Your task to perform on an android device: turn off javascript in the chrome app Image 0: 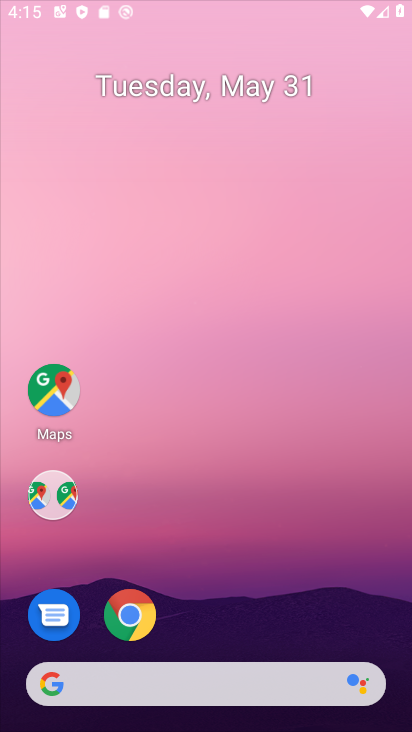
Step 0: click (229, 78)
Your task to perform on an android device: turn off javascript in the chrome app Image 1: 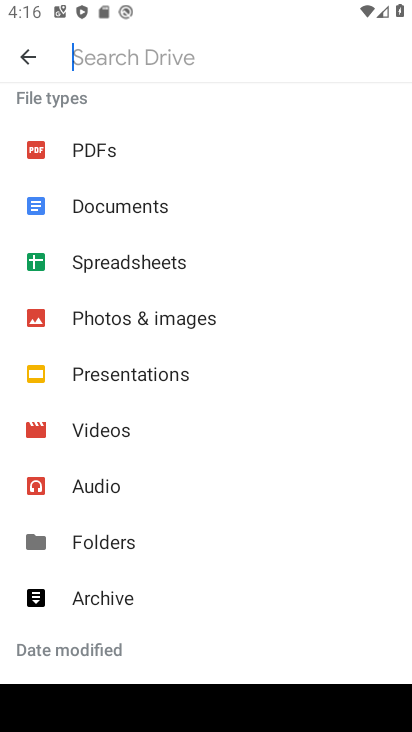
Step 1: click (22, 57)
Your task to perform on an android device: turn off javascript in the chrome app Image 2: 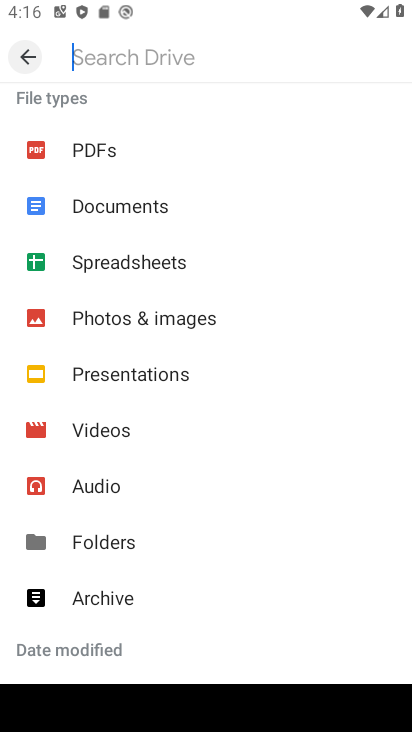
Step 2: click (22, 57)
Your task to perform on an android device: turn off javascript in the chrome app Image 3: 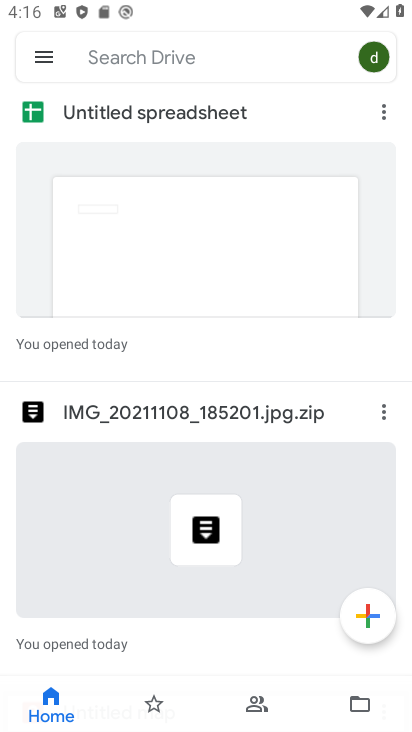
Step 3: click (24, 57)
Your task to perform on an android device: turn off javascript in the chrome app Image 4: 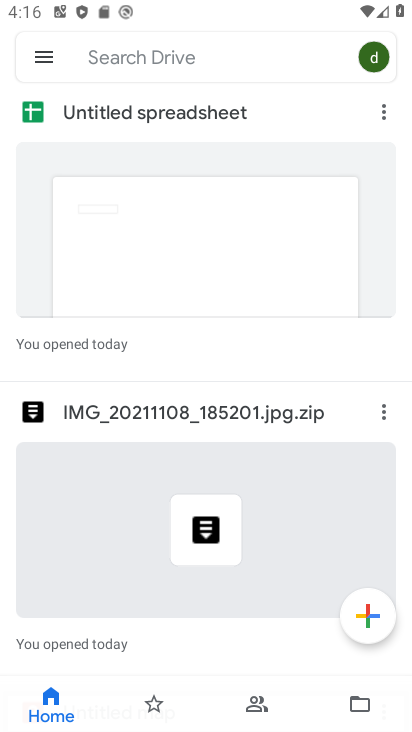
Step 4: click (37, 57)
Your task to perform on an android device: turn off javascript in the chrome app Image 5: 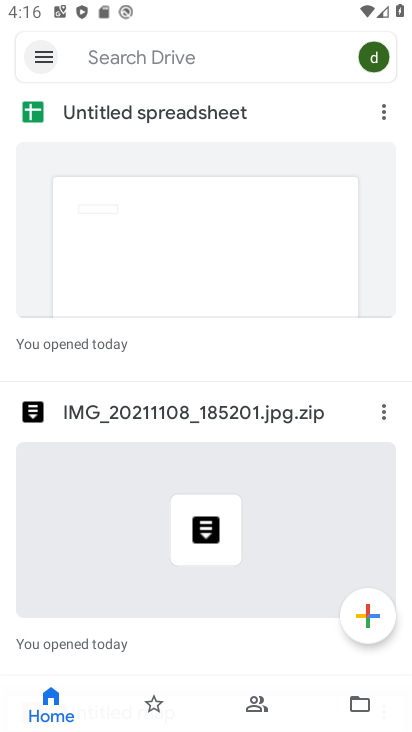
Step 5: click (38, 56)
Your task to perform on an android device: turn off javascript in the chrome app Image 6: 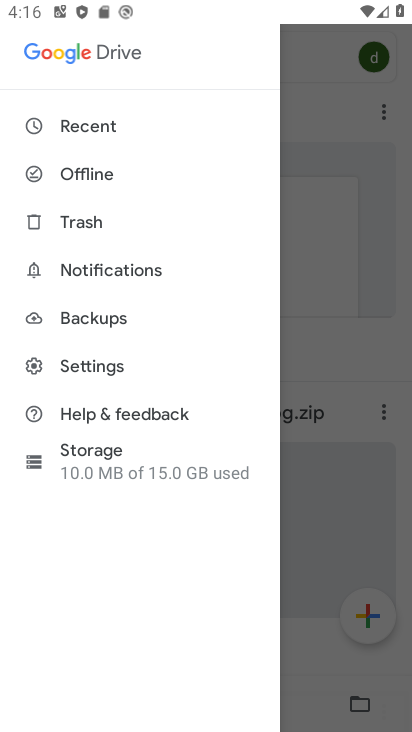
Step 6: click (362, 424)
Your task to perform on an android device: turn off javascript in the chrome app Image 7: 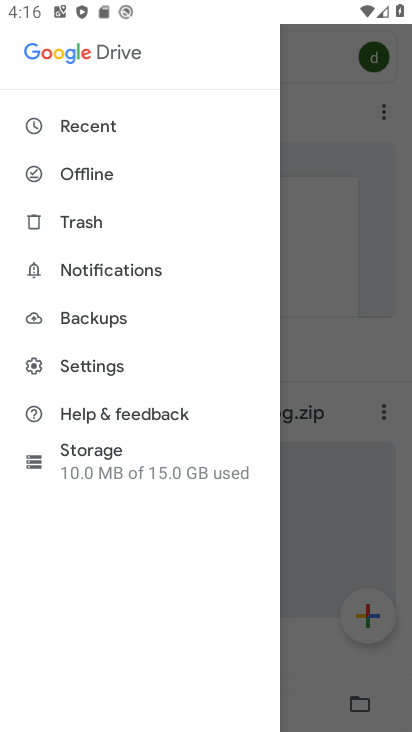
Step 7: press back button
Your task to perform on an android device: turn off javascript in the chrome app Image 8: 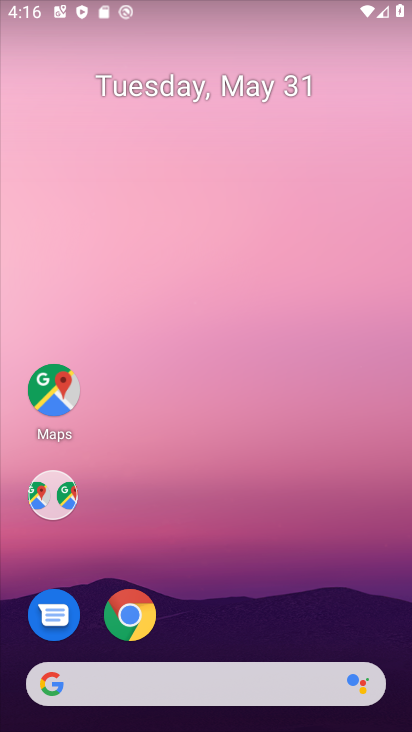
Step 8: drag from (283, 692) to (166, 118)
Your task to perform on an android device: turn off javascript in the chrome app Image 9: 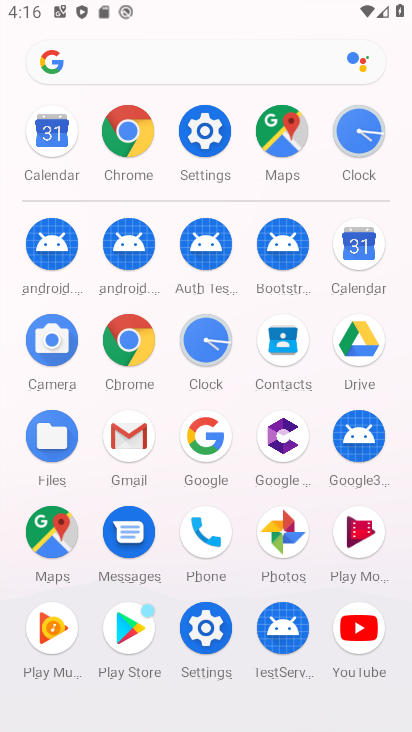
Step 9: click (123, 126)
Your task to perform on an android device: turn off javascript in the chrome app Image 10: 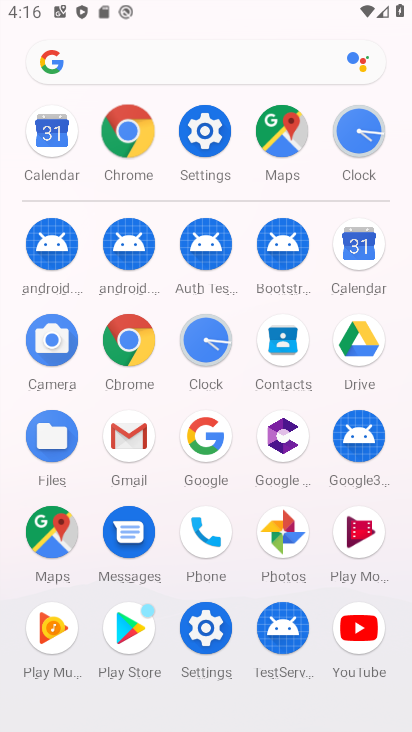
Step 10: click (123, 126)
Your task to perform on an android device: turn off javascript in the chrome app Image 11: 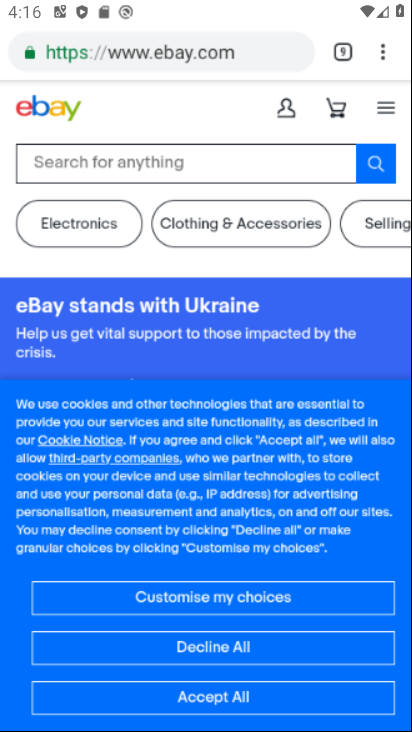
Step 11: click (127, 130)
Your task to perform on an android device: turn off javascript in the chrome app Image 12: 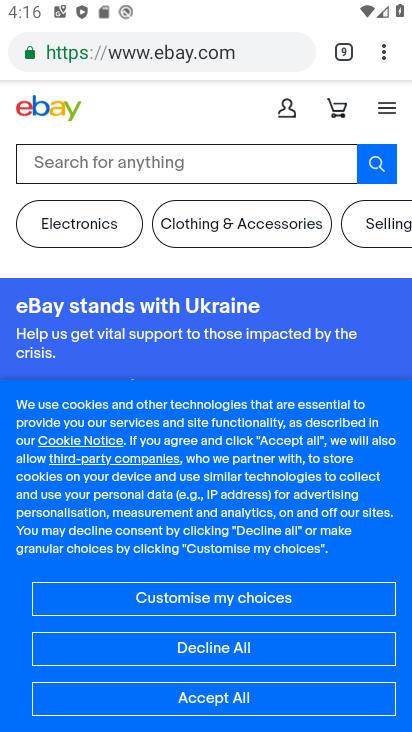
Step 12: drag from (385, 49) to (187, 632)
Your task to perform on an android device: turn off javascript in the chrome app Image 13: 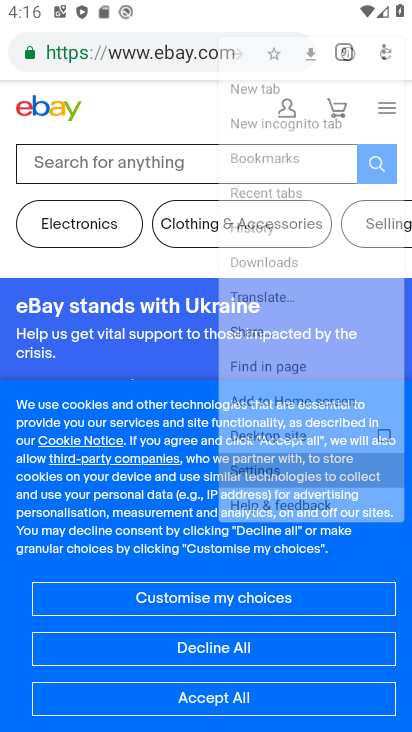
Step 13: click (187, 632)
Your task to perform on an android device: turn off javascript in the chrome app Image 14: 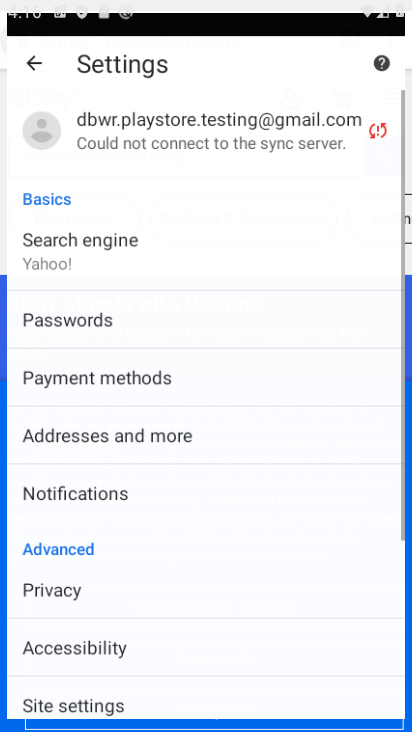
Step 14: click (195, 618)
Your task to perform on an android device: turn off javascript in the chrome app Image 15: 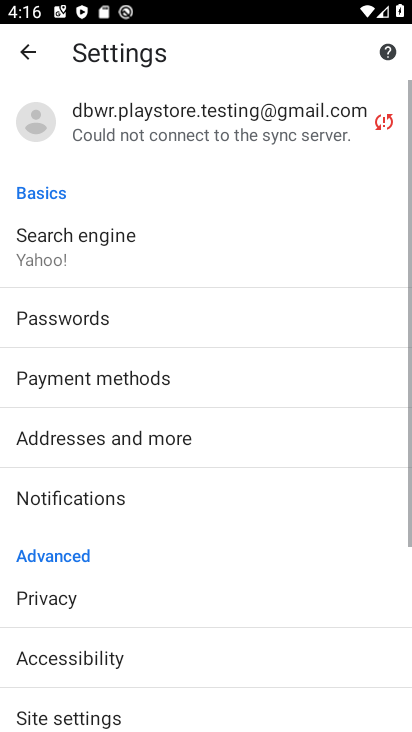
Step 15: drag from (110, 470) to (147, 132)
Your task to perform on an android device: turn off javascript in the chrome app Image 16: 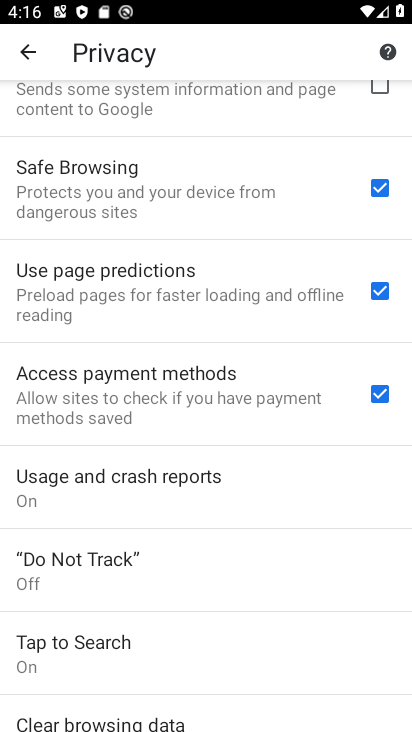
Step 16: click (20, 51)
Your task to perform on an android device: turn off javascript in the chrome app Image 17: 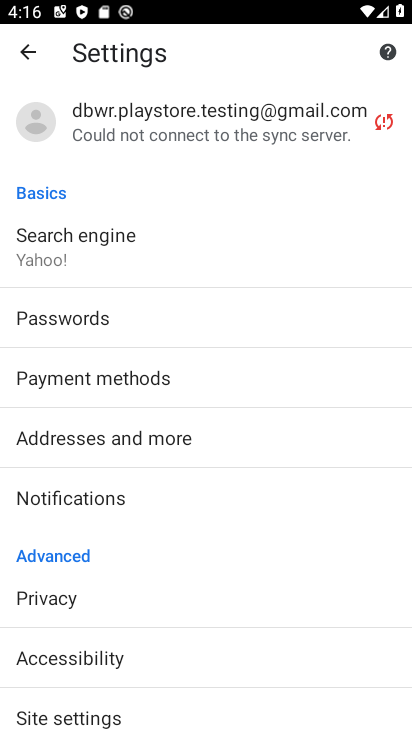
Step 17: click (88, 236)
Your task to perform on an android device: turn off javascript in the chrome app Image 18: 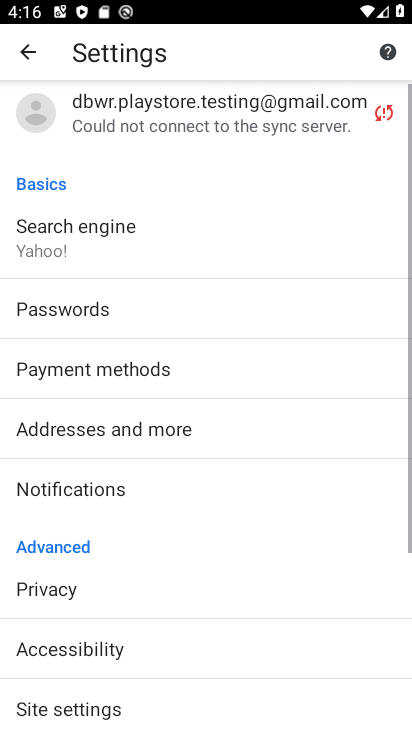
Step 18: drag from (86, 463) to (73, 172)
Your task to perform on an android device: turn off javascript in the chrome app Image 19: 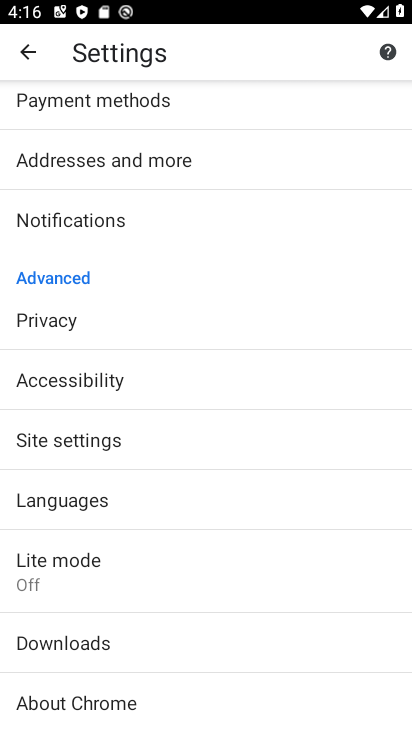
Step 19: click (54, 439)
Your task to perform on an android device: turn off javascript in the chrome app Image 20: 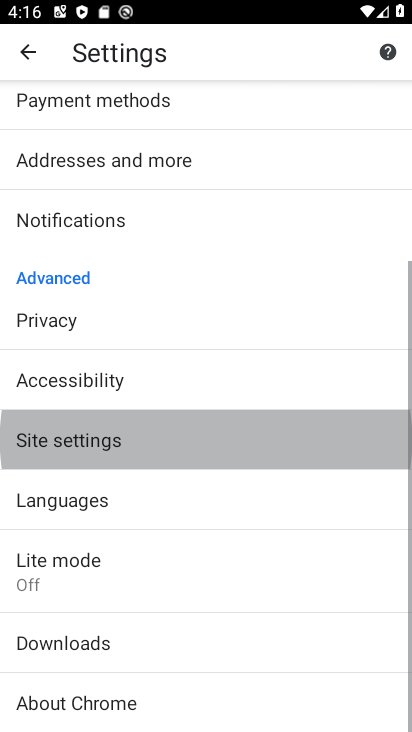
Step 20: click (55, 439)
Your task to perform on an android device: turn off javascript in the chrome app Image 21: 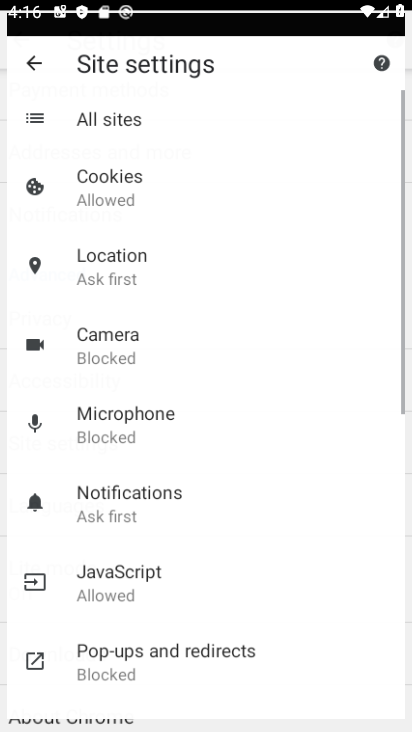
Step 21: click (58, 436)
Your task to perform on an android device: turn off javascript in the chrome app Image 22: 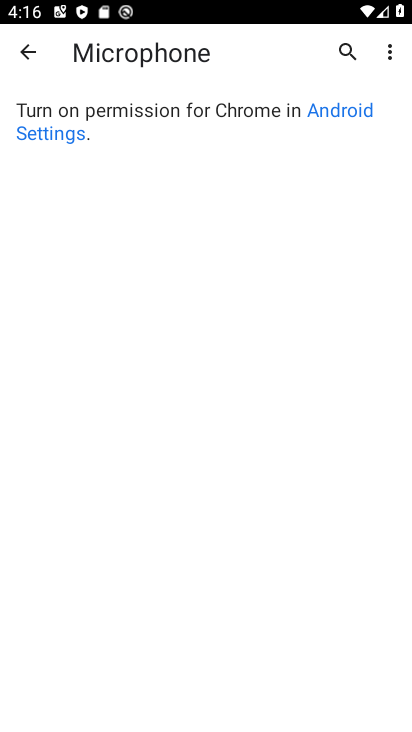
Step 22: click (19, 34)
Your task to perform on an android device: turn off javascript in the chrome app Image 23: 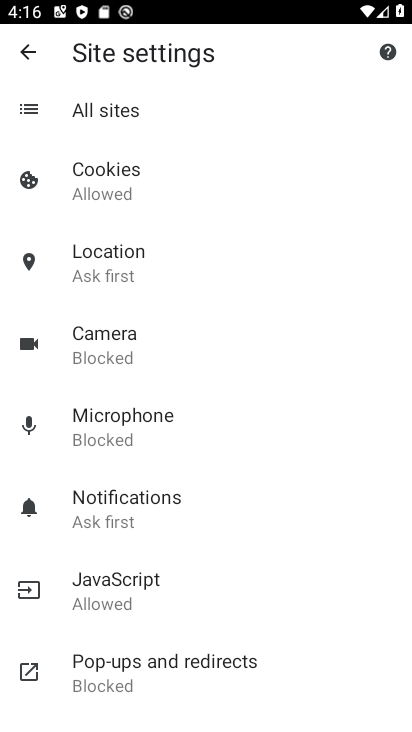
Step 23: click (107, 587)
Your task to perform on an android device: turn off javascript in the chrome app Image 24: 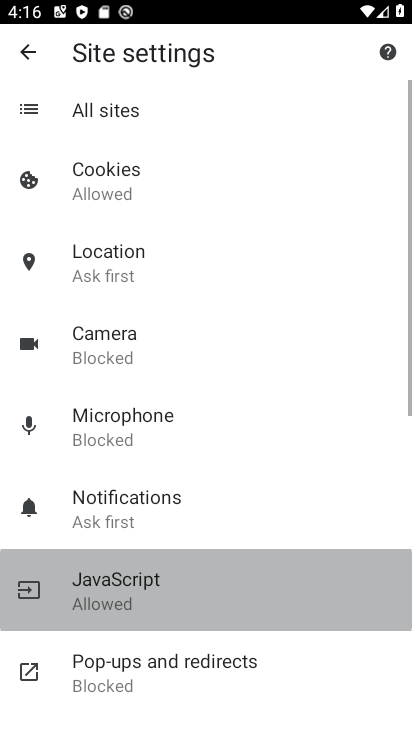
Step 24: click (107, 587)
Your task to perform on an android device: turn off javascript in the chrome app Image 25: 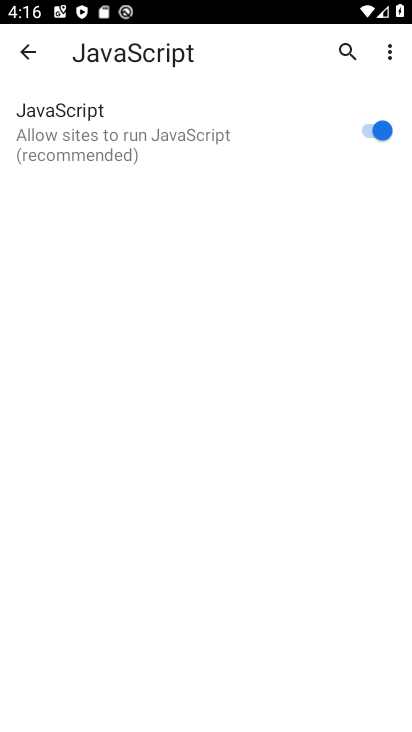
Step 25: click (377, 123)
Your task to perform on an android device: turn off javascript in the chrome app Image 26: 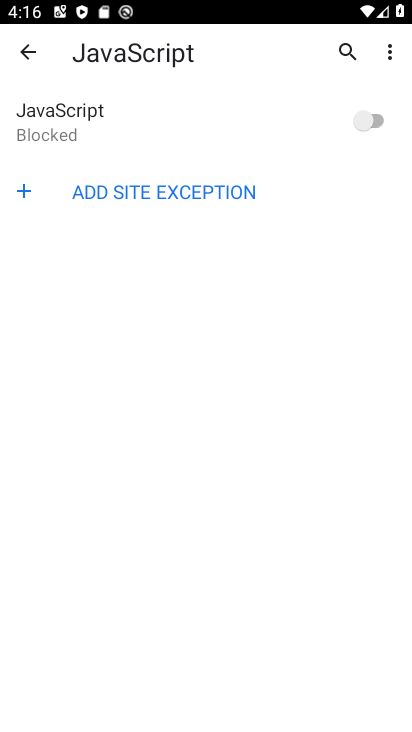
Step 26: task complete